Your task to perform on an android device: Add usb-c to usb-a to the cart on bestbuy Image 0: 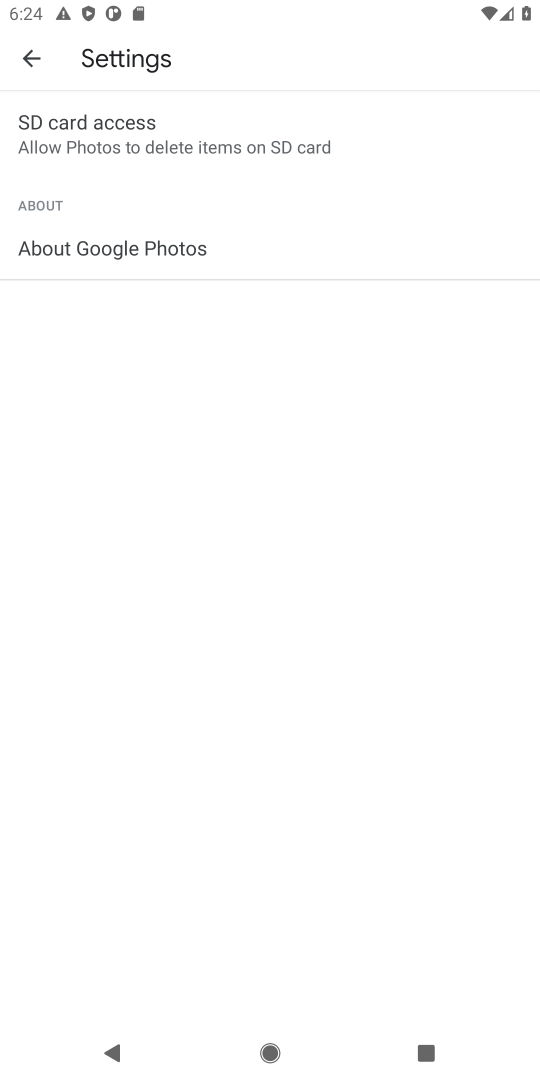
Step 0: press home button
Your task to perform on an android device: Add usb-c to usb-a to the cart on bestbuy Image 1: 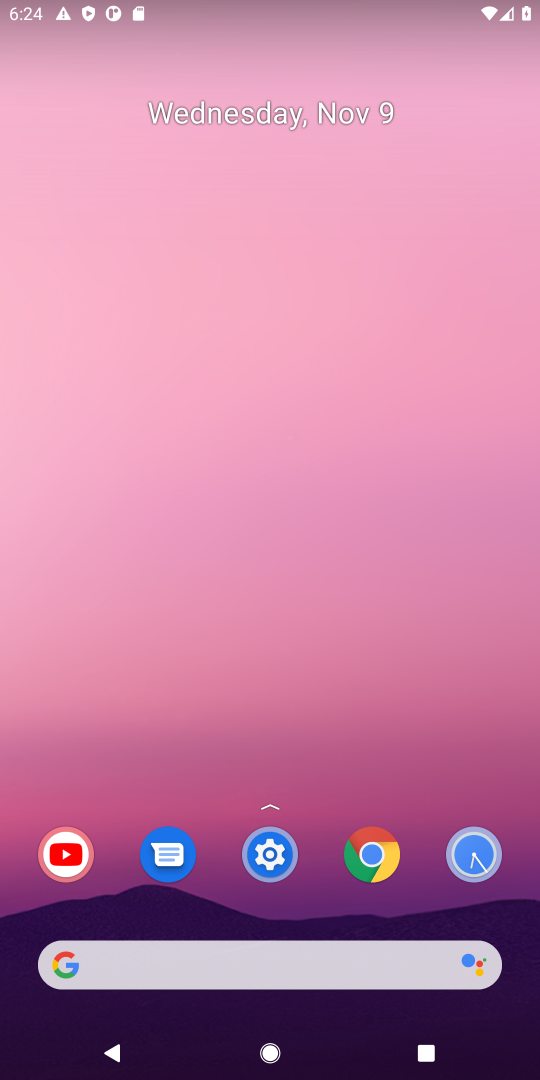
Step 1: click (339, 950)
Your task to perform on an android device: Add usb-c to usb-a to the cart on bestbuy Image 2: 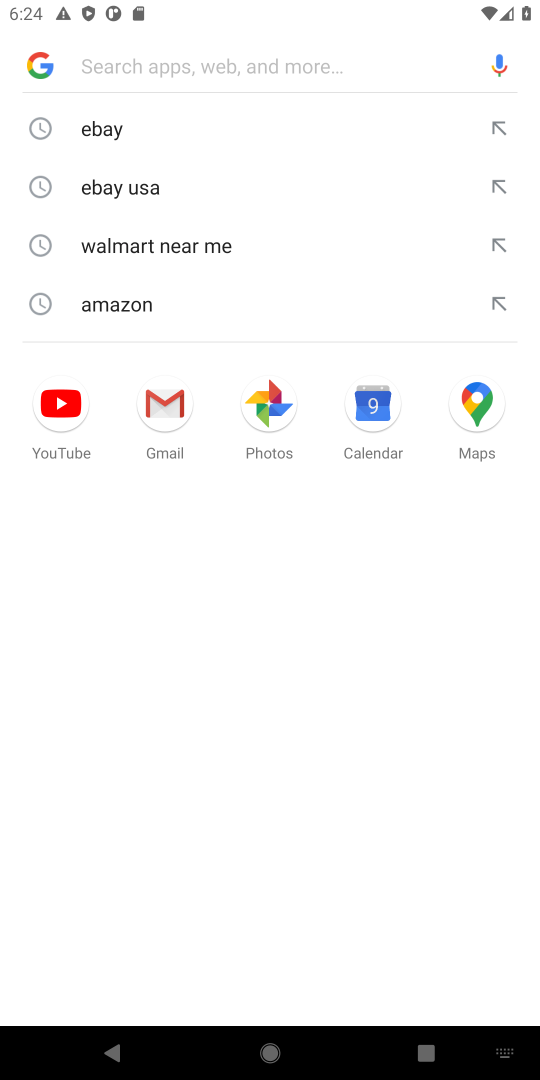
Step 2: type "bestbuy"
Your task to perform on an android device: Add usb-c to usb-a to the cart on bestbuy Image 3: 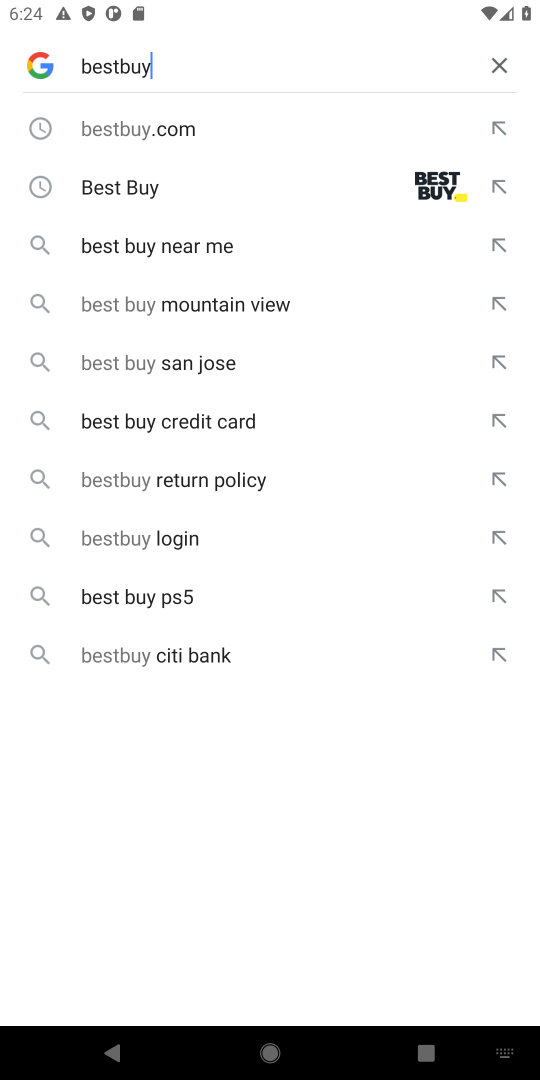
Step 3: click (322, 200)
Your task to perform on an android device: Add usb-c to usb-a to the cart on bestbuy Image 4: 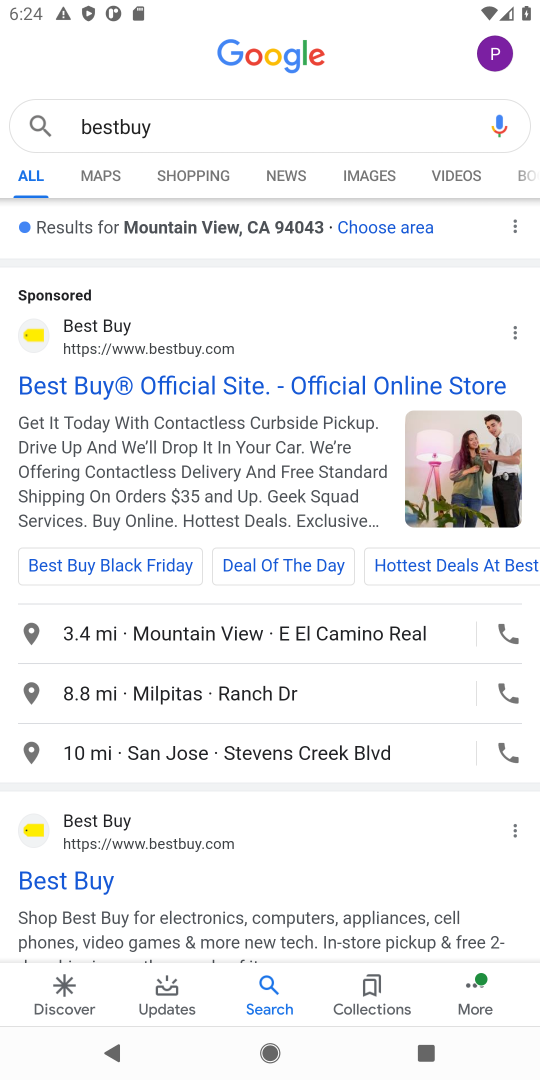
Step 4: click (265, 346)
Your task to perform on an android device: Add usb-c to usb-a to the cart on bestbuy Image 5: 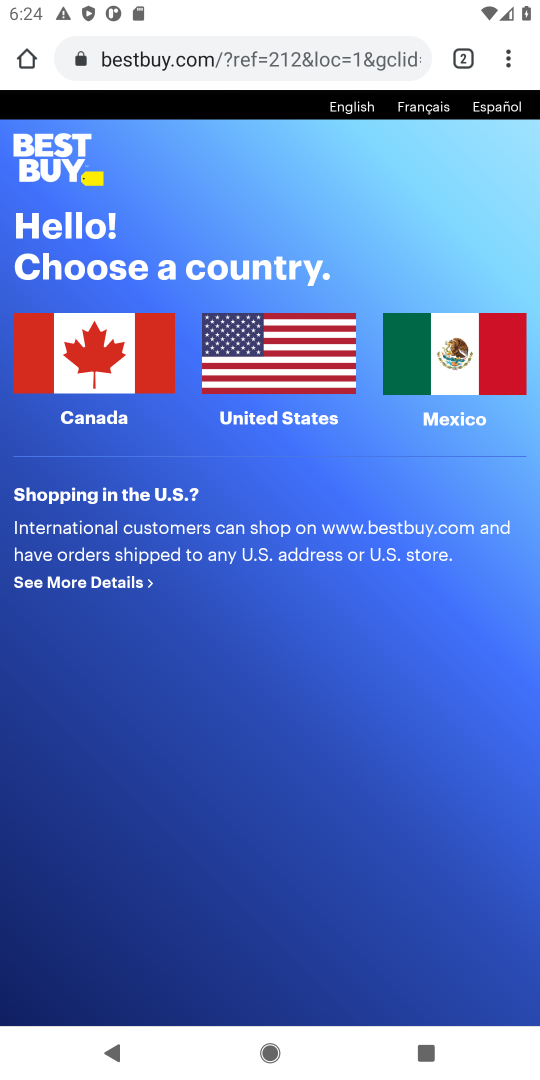
Step 5: click (235, 359)
Your task to perform on an android device: Add usb-c to usb-a to the cart on bestbuy Image 6: 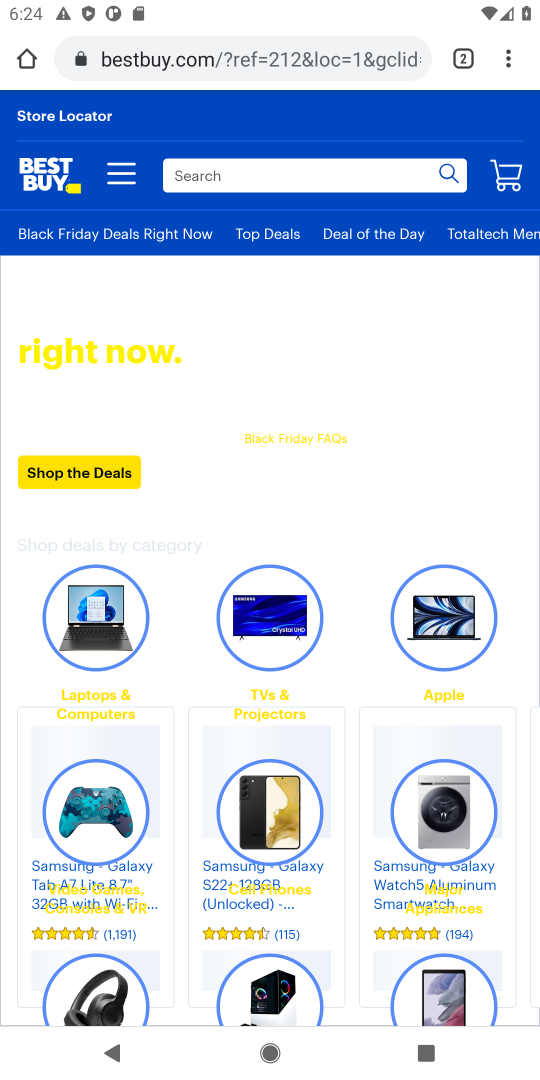
Step 6: click (224, 172)
Your task to perform on an android device: Add usb-c to usb-a to the cart on bestbuy Image 7: 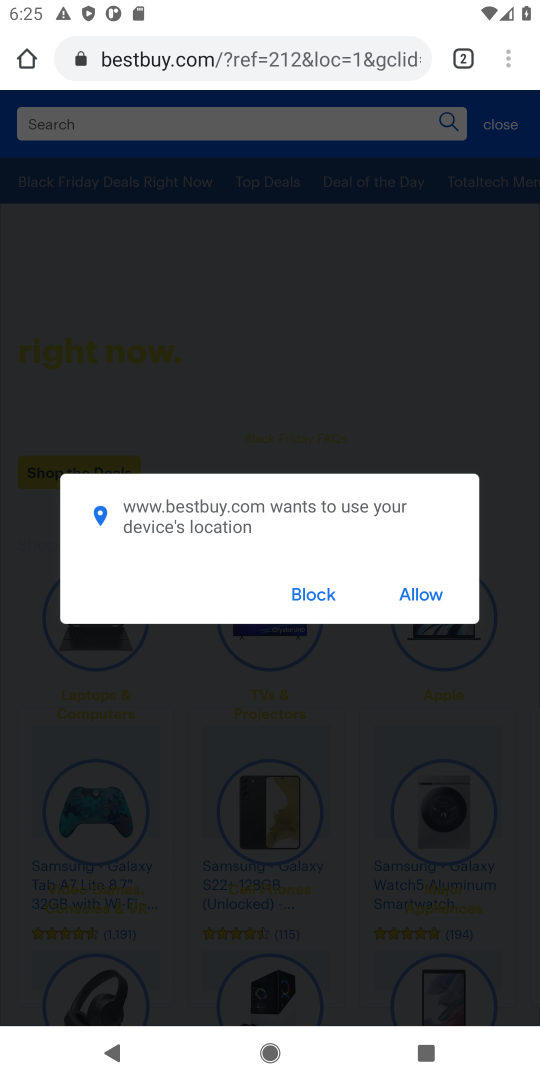
Step 7: click (404, 602)
Your task to perform on an android device: Add usb-c to usb-a to the cart on bestbuy Image 8: 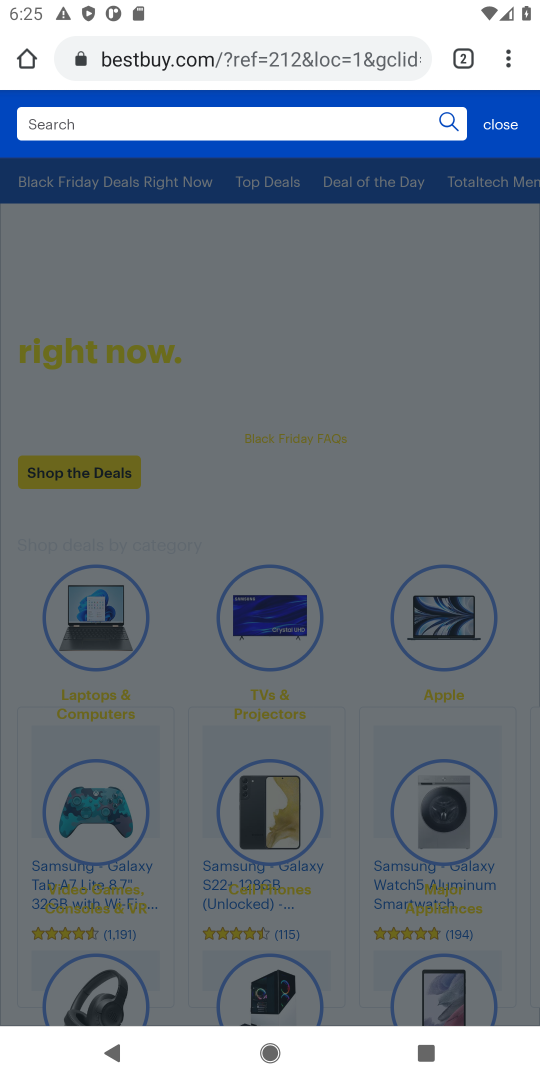
Step 8: click (292, 126)
Your task to perform on an android device: Add usb-c to usb-a to the cart on bestbuy Image 9: 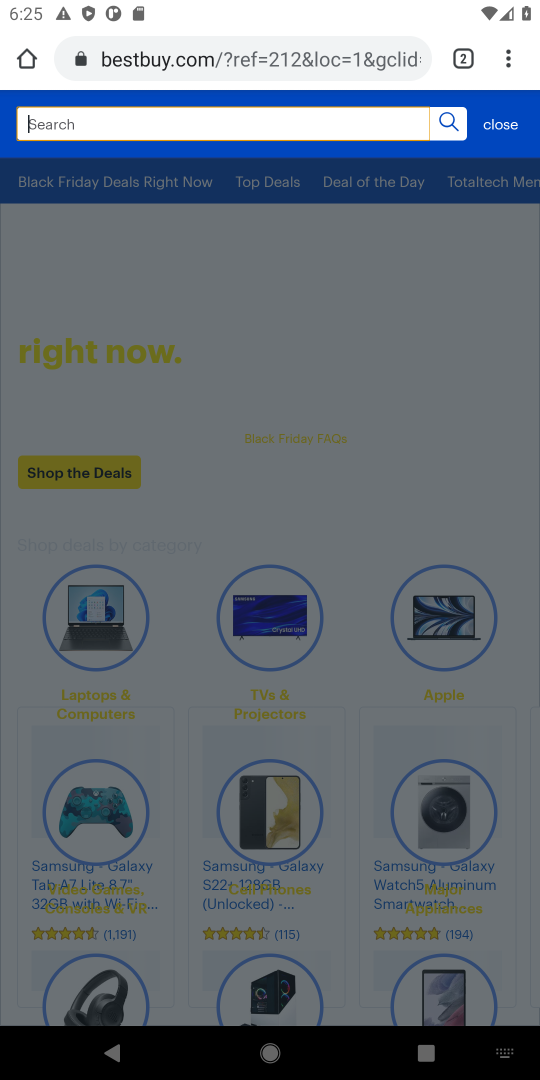
Step 9: type "usb-c to usb-a"
Your task to perform on an android device: Add usb-c to usb-a to the cart on bestbuy Image 10: 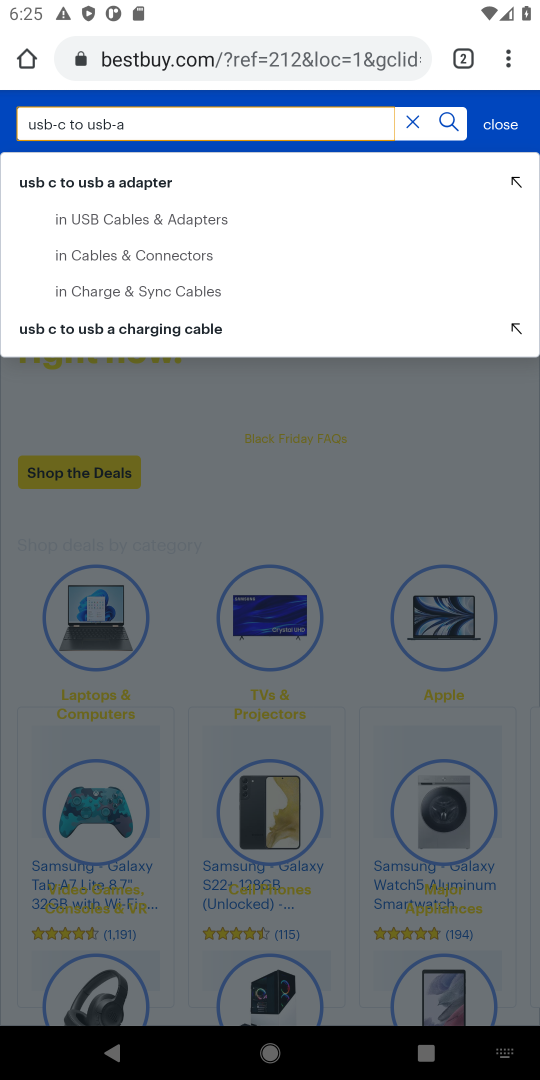
Step 10: click (115, 184)
Your task to perform on an android device: Add usb-c to usb-a to the cart on bestbuy Image 11: 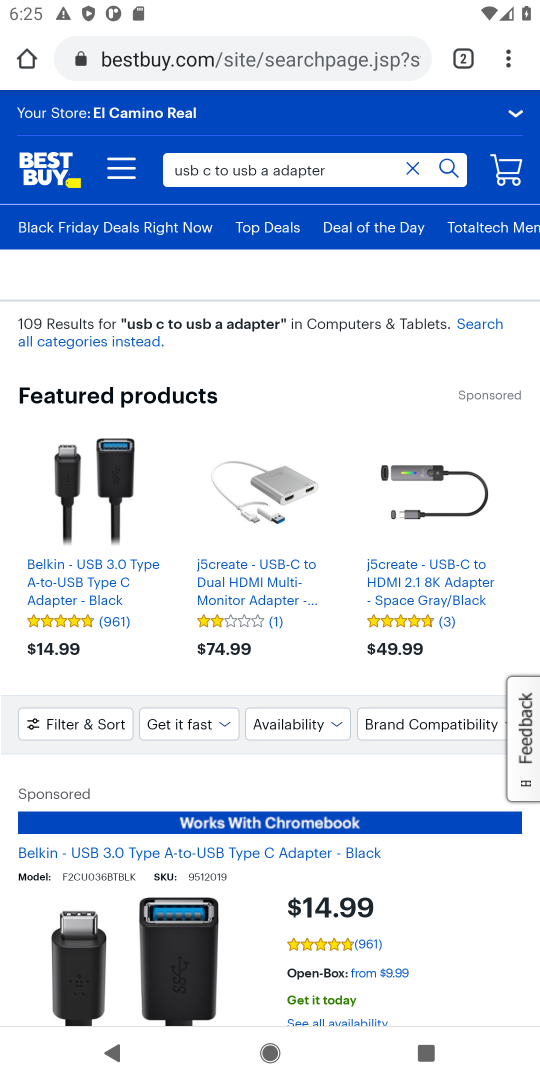
Step 11: click (58, 563)
Your task to perform on an android device: Add usb-c to usb-a to the cart on bestbuy Image 12: 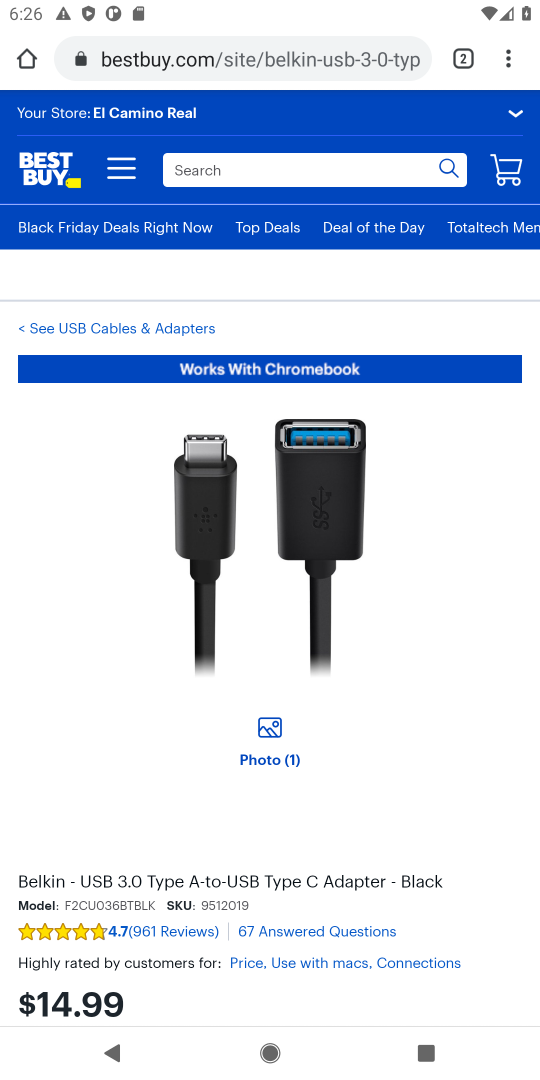
Step 12: task complete